Your task to perform on an android device: Search for sushi restaurants on Maps Image 0: 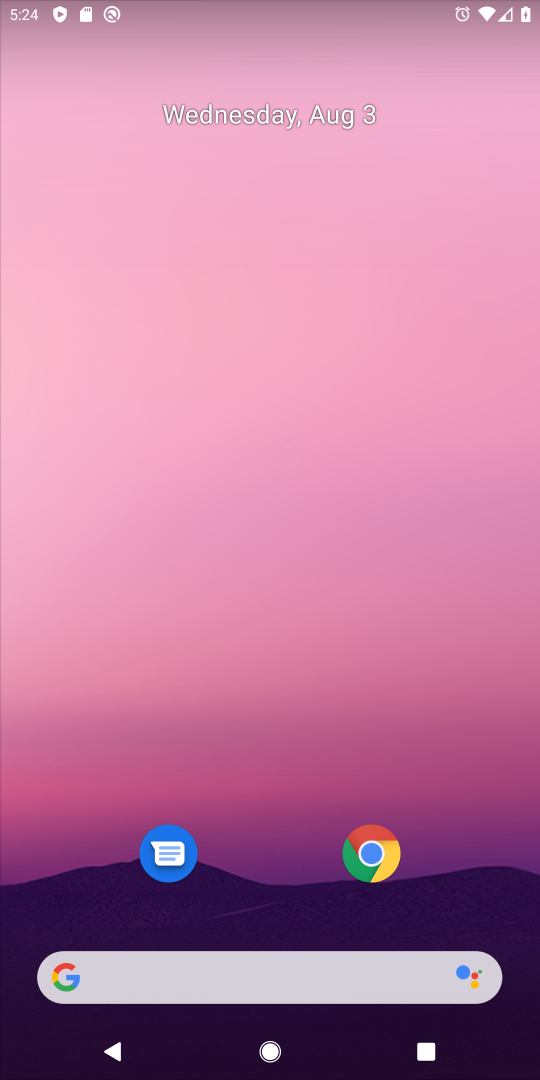
Step 0: press home button
Your task to perform on an android device: Search for sushi restaurants on Maps Image 1: 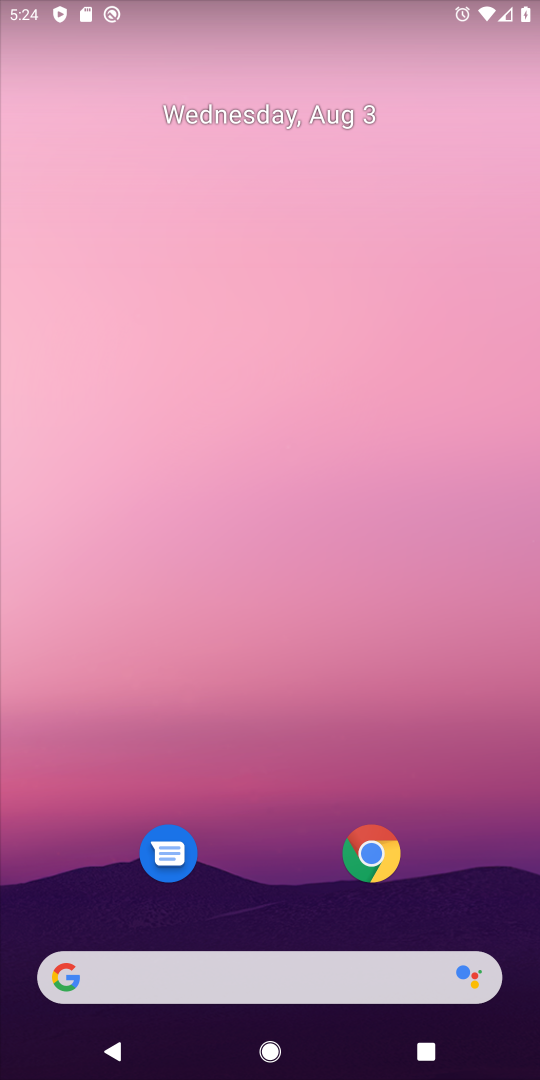
Step 1: drag from (485, 826) to (370, 205)
Your task to perform on an android device: Search for sushi restaurants on Maps Image 2: 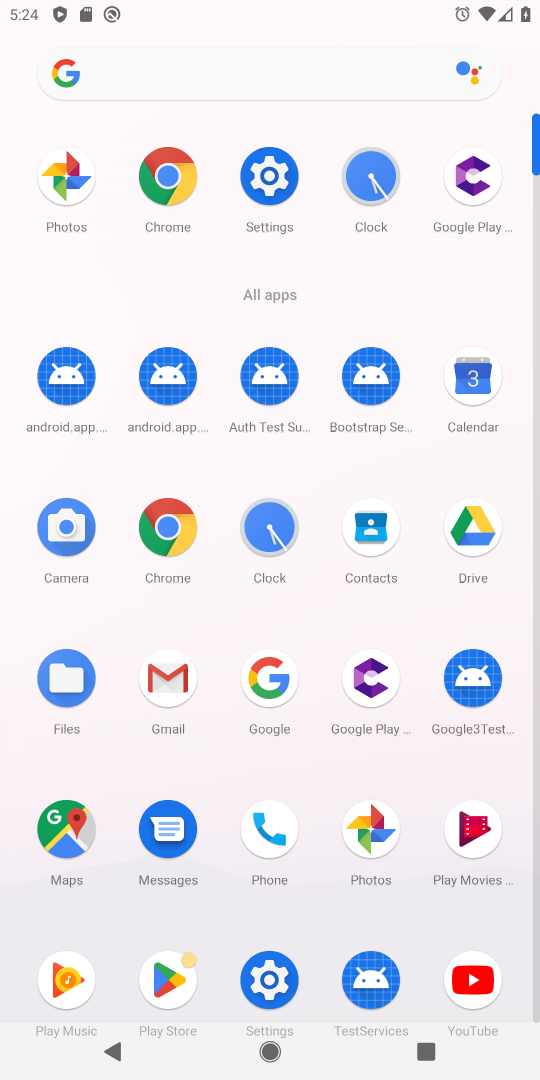
Step 2: click (55, 825)
Your task to perform on an android device: Search for sushi restaurants on Maps Image 3: 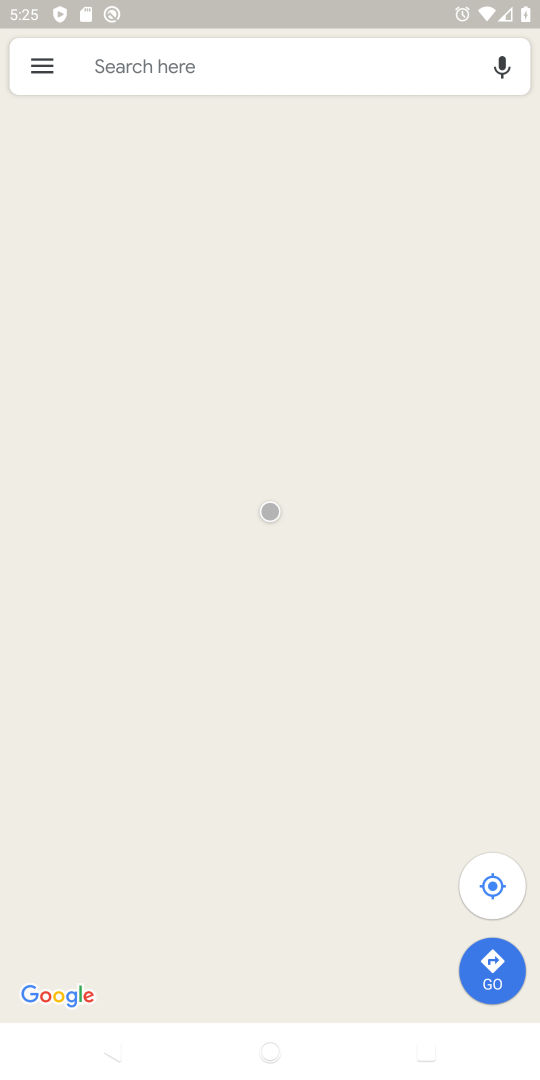
Step 3: click (304, 65)
Your task to perform on an android device: Search for sushi restaurants on Maps Image 4: 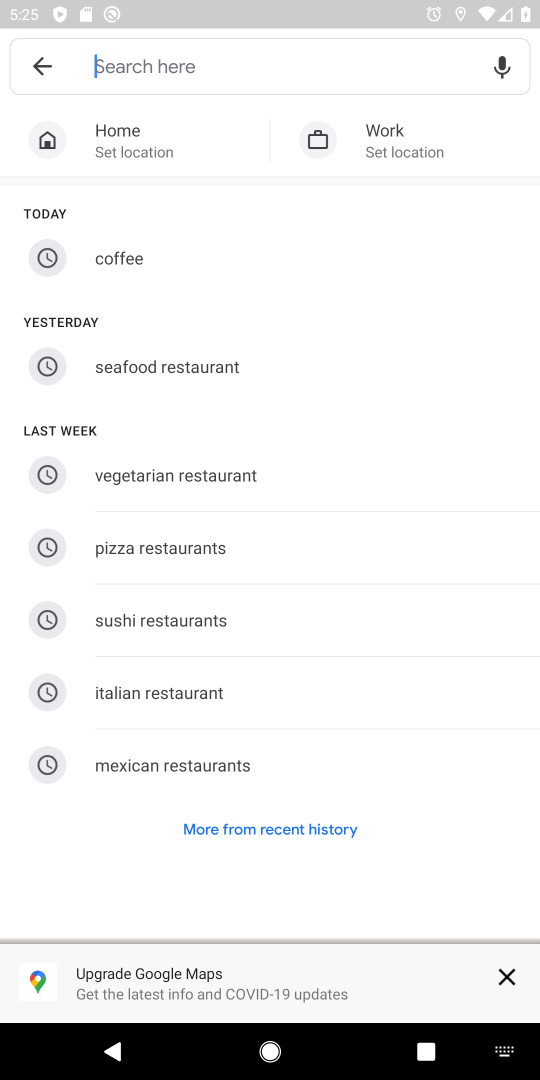
Step 4: type "sushi restaurant"
Your task to perform on an android device: Search for sushi restaurants on Maps Image 5: 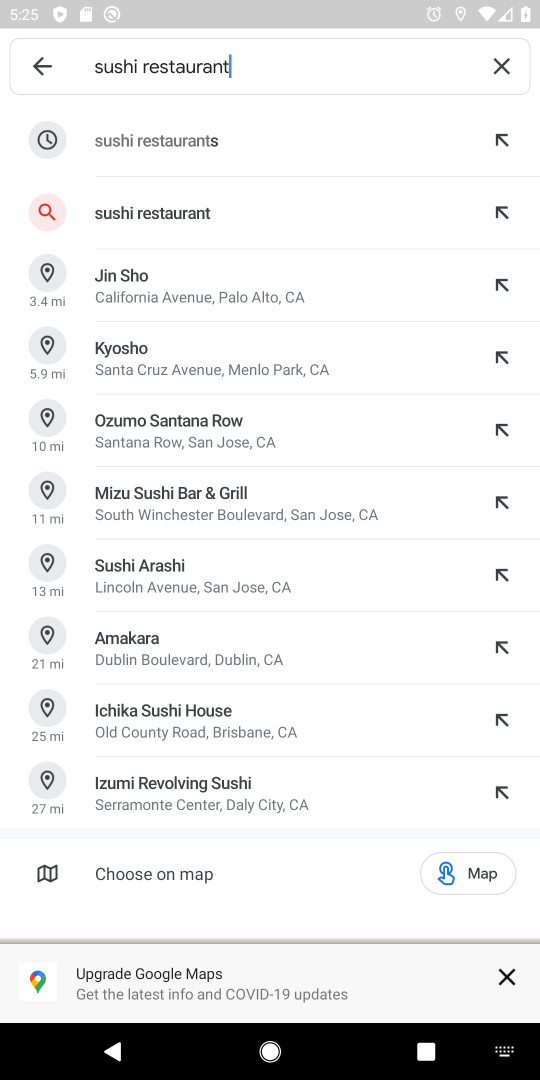
Step 5: click (220, 124)
Your task to perform on an android device: Search for sushi restaurants on Maps Image 6: 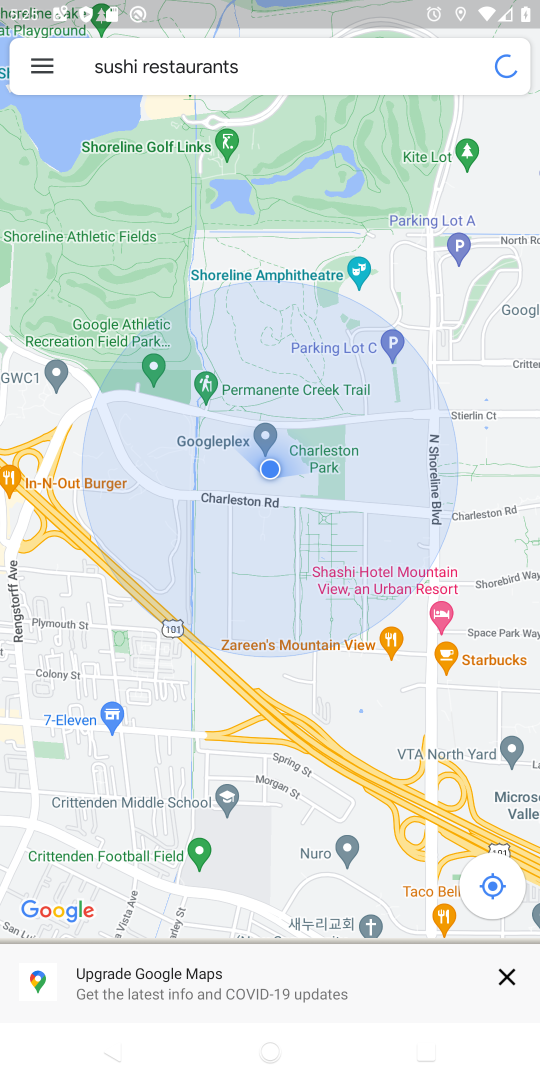
Step 6: task complete